Your task to perform on an android device: empty trash in the gmail app Image 0: 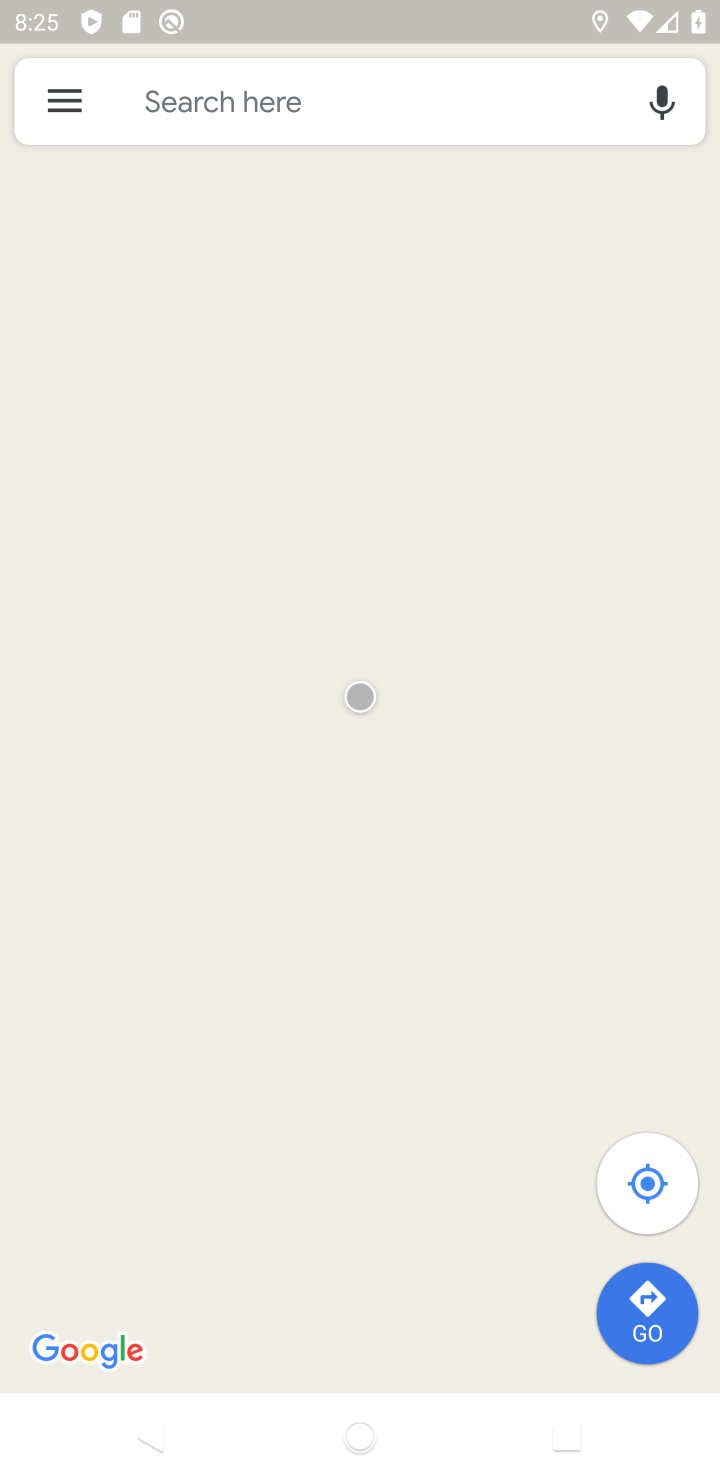
Step 0: press home button
Your task to perform on an android device: empty trash in the gmail app Image 1: 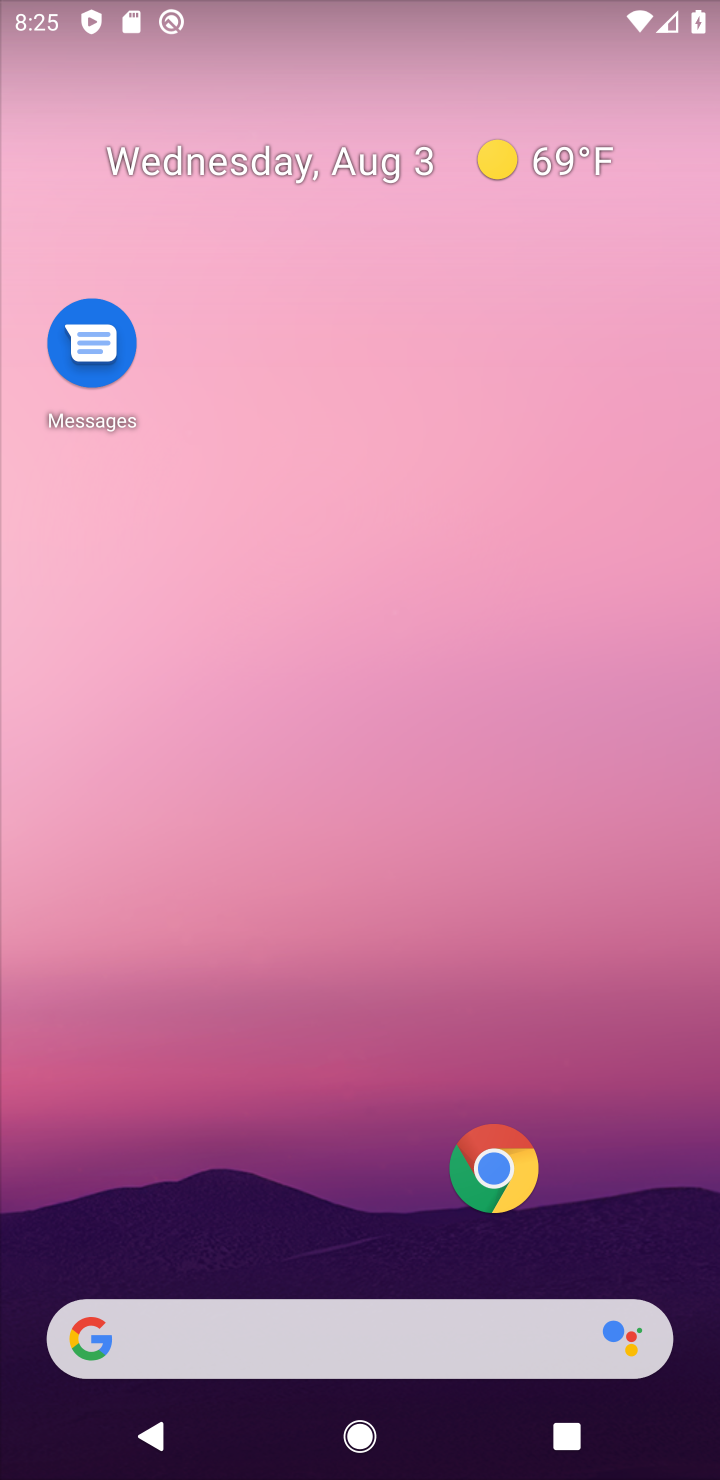
Step 1: drag from (406, 1223) to (424, 81)
Your task to perform on an android device: empty trash in the gmail app Image 2: 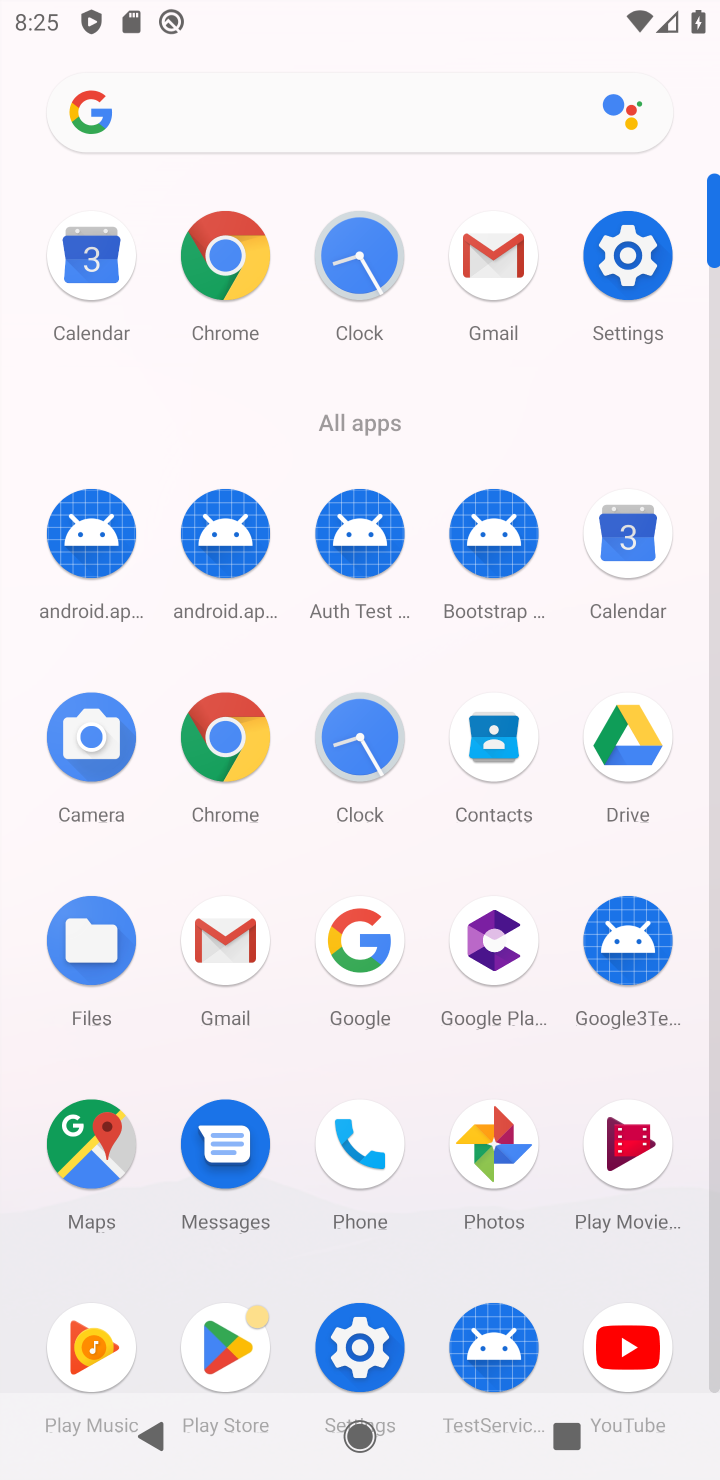
Step 2: click (227, 955)
Your task to perform on an android device: empty trash in the gmail app Image 3: 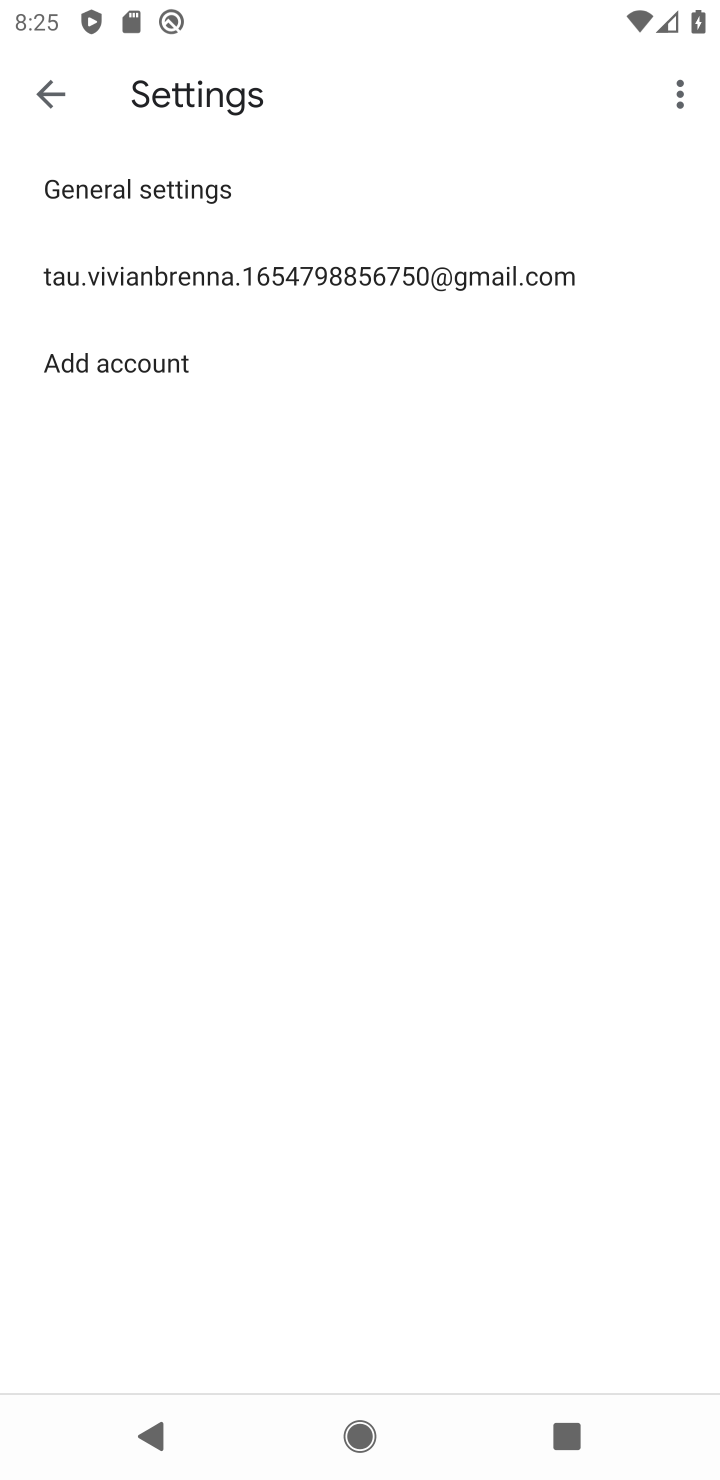
Step 3: click (24, 75)
Your task to perform on an android device: empty trash in the gmail app Image 4: 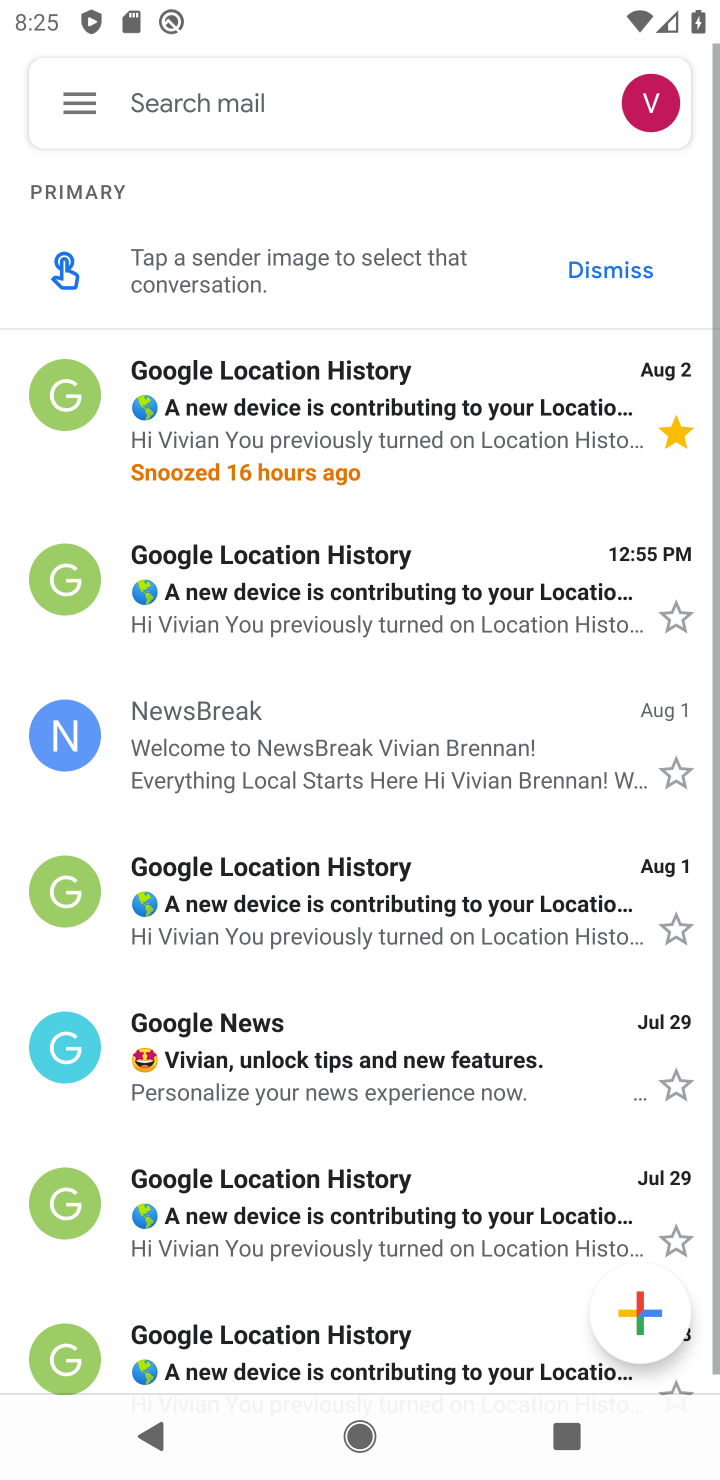
Step 4: click (67, 91)
Your task to perform on an android device: empty trash in the gmail app Image 5: 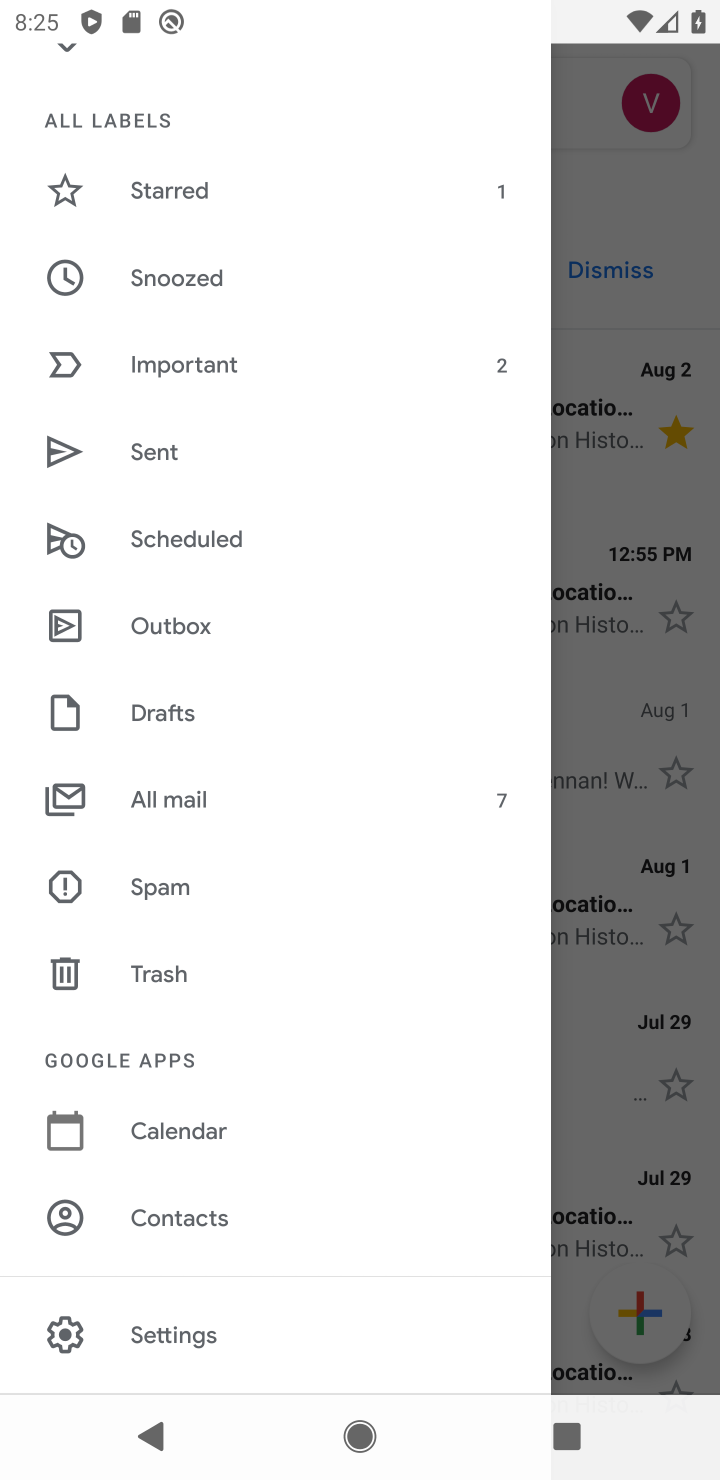
Step 5: click (152, 982)
Your task to perform on an android device: empty trash in the gmail app Image 6: 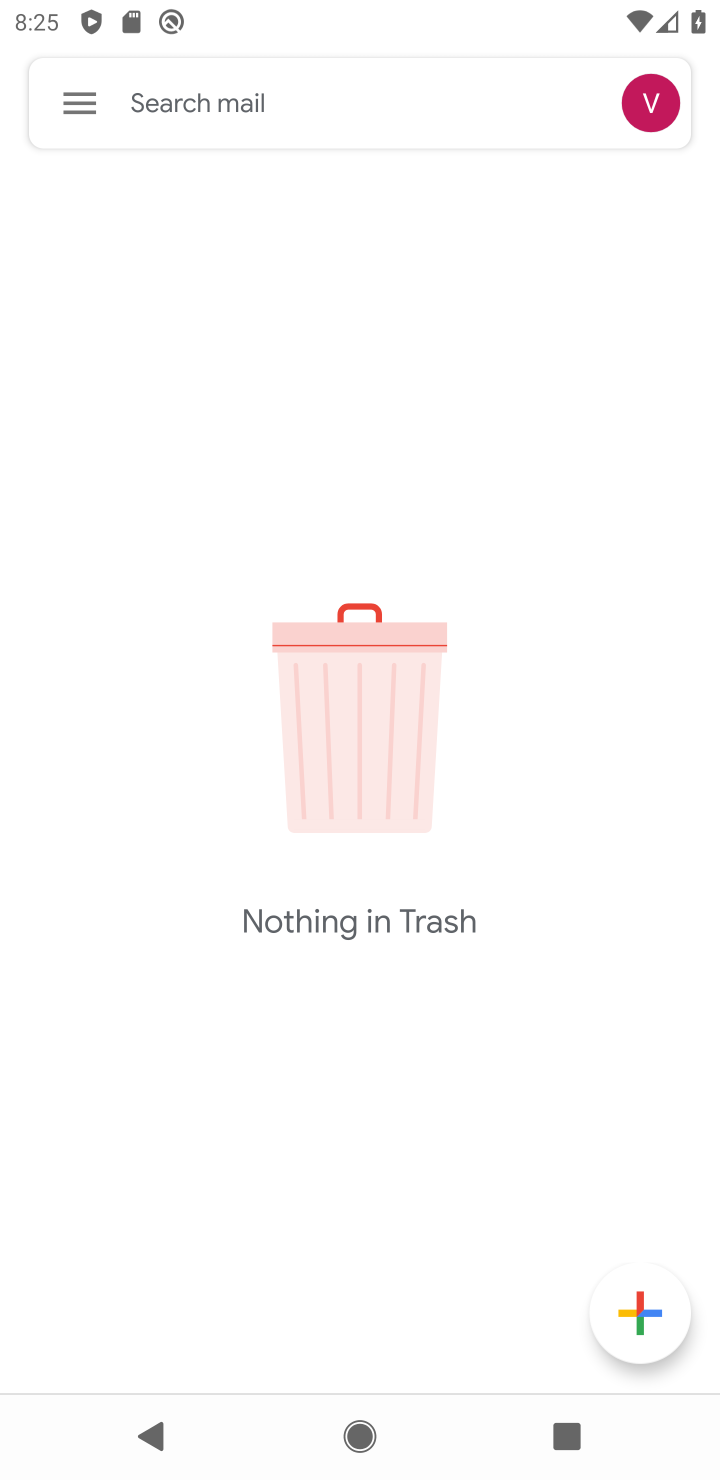
Step 6: task complete